Your task to perform on an android device: empty trash in google photos Image 0: 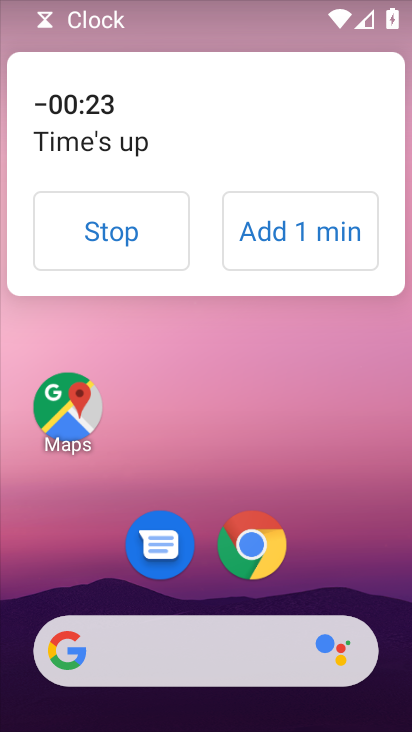
Step 0: press home button
Your task to perform on an android device: empty trash in google photos Image 1: 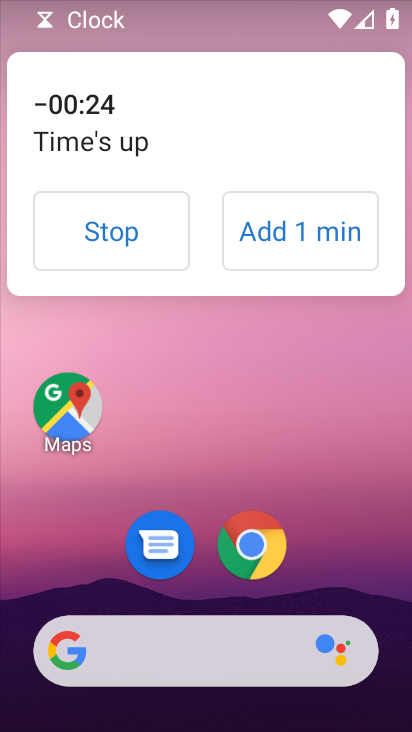
Step 1: drag from (202, 598) to (227, 70)
Your task to perform on an android device: empty trash in google photos Image 2: 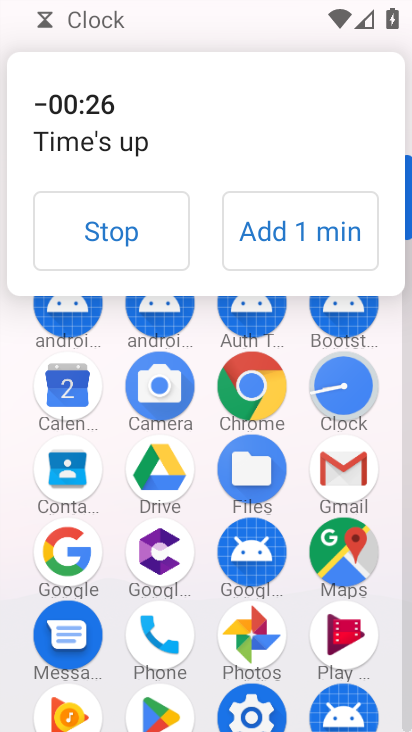
Step 2: click (164, 214)
Your task to perform on an android device: empty trash in google photos Image 3: 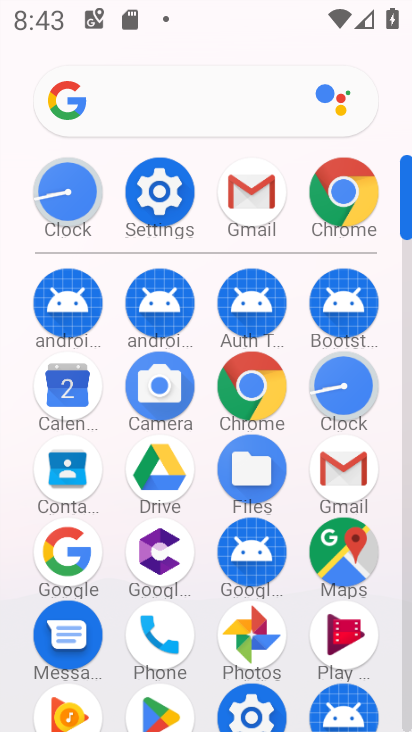
Step 3: click (245, 642)
Your task to perform on an android device: empty trash in google photos Image 4: 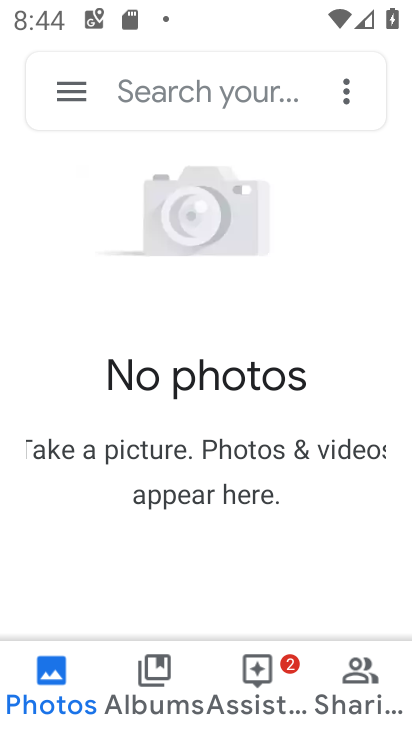
Step 4: click (101, 81)
Your task to perform on an android device: empty trash in google photos Image 5: 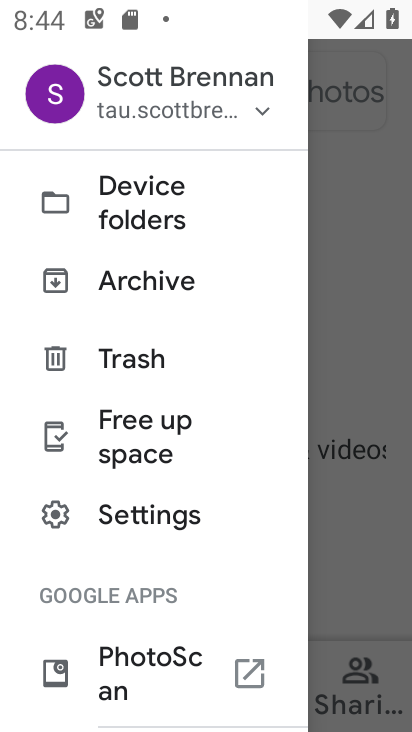
Step 5: click (140, 359)
Your task to perform on an android device: empty trash in google photos Image 6: 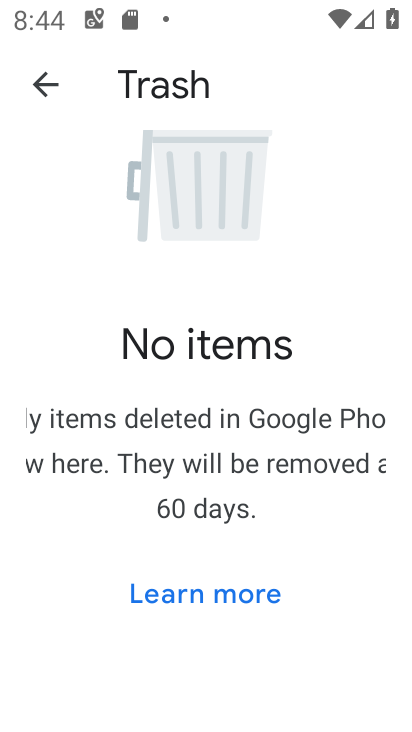
Step 6: task complete